Your task to perform on an android device: open device folders in google photos Image 0: 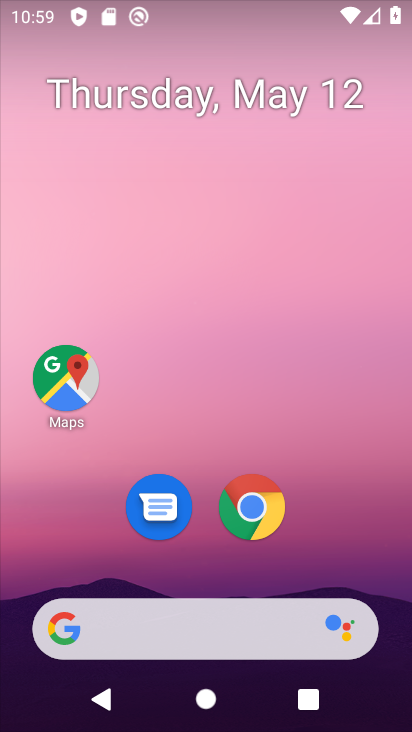
Step 0: drag from (189, 591) to (268, 105)
Your task to perform on an android device: open device folders in google photos Image 1: 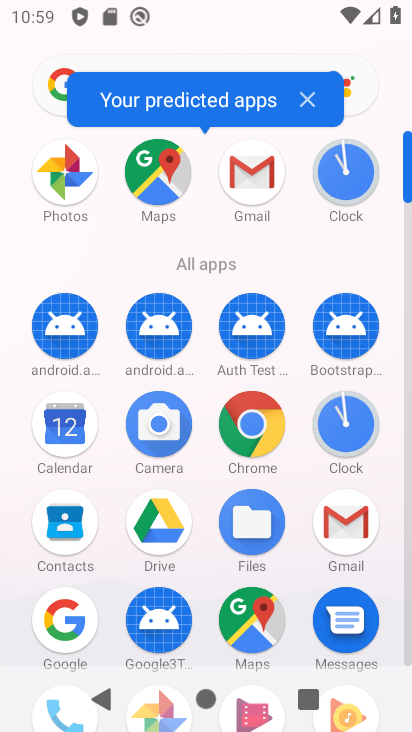
Step 1: drag from (215, 588) to (250, 332)
Your task to perform on an android device: open device folders in google photos Image 2: 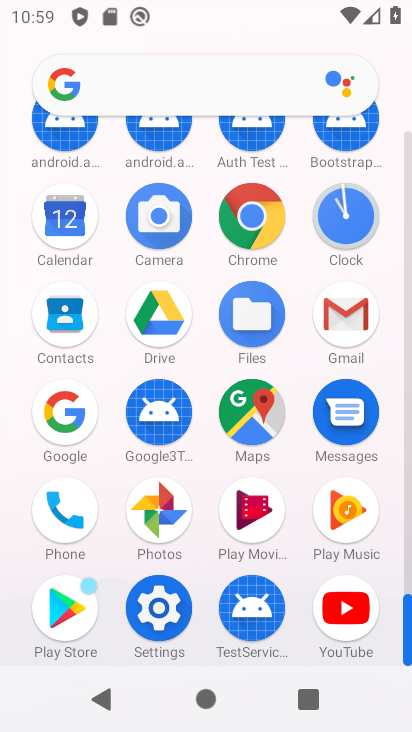
Step 2: click (158, 521)
Your task to perform on an android device: open device folders in google photos Image 3: 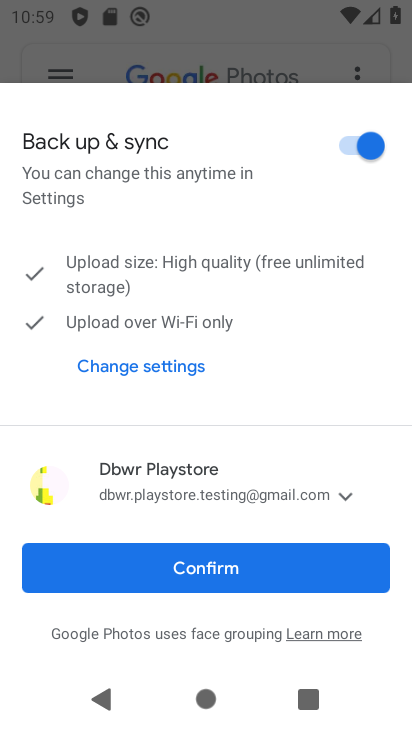
Step 3: click (244, 562)
Your task to perform on an android device: open device folders in google photos Image 4: 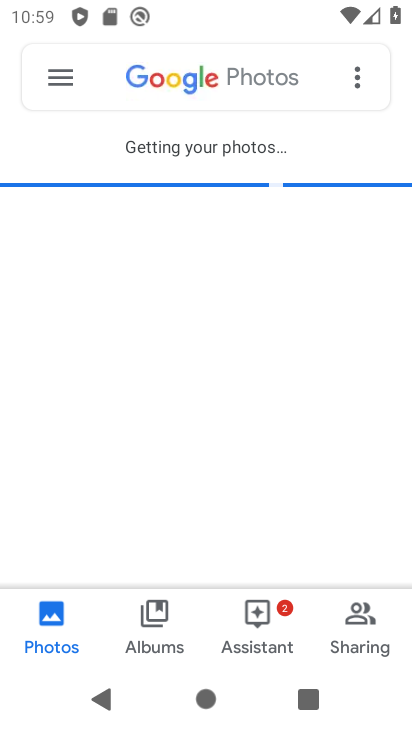
Step 4: click (73, 84)
Your task to perform on an android device: open device folders in google photos Image 5: 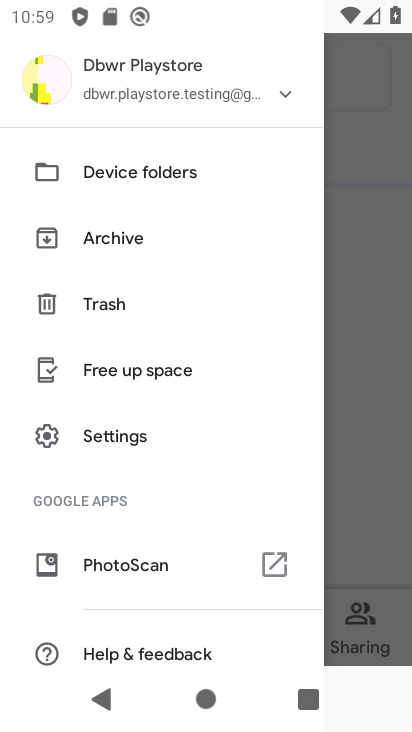
Step 5: click (154, 181)
Your task to perform on an android device: open device folders in google photos Image 6: 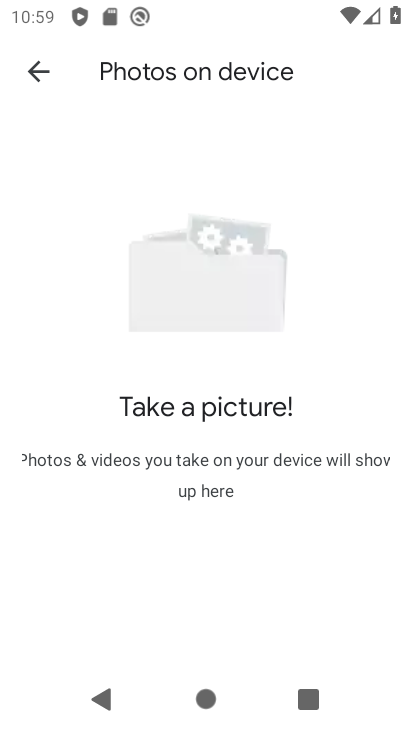
Step 6: task complete